Your task to perform on an android device: allow notifications from all sites in the chrome app Image 0: 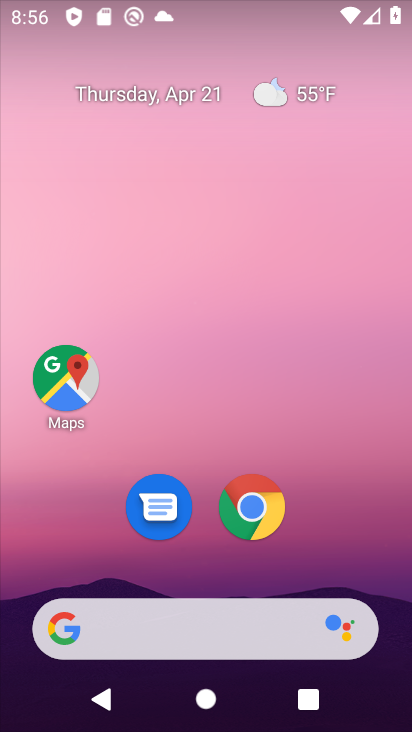
Step 0: drag from (269, 539) to (261, 209)
Your task to perform on an android device: allow notifications from all sites in the chrome app Image 1: 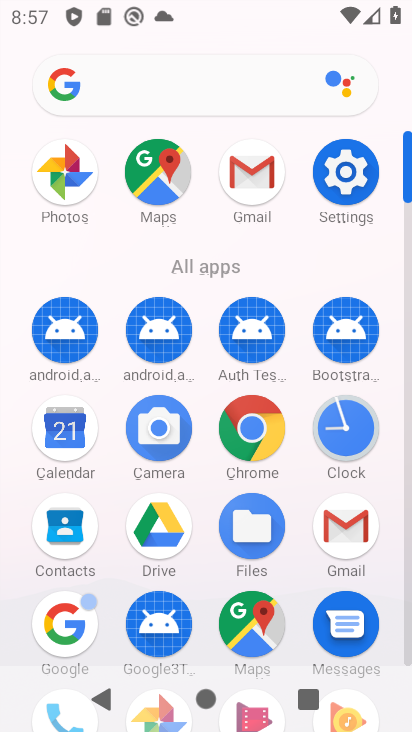
Step 1: drag from (195, 587) to (254, 311)
Your task to perform on an android device: allow notifications from all sites in the chrome app Image 2: 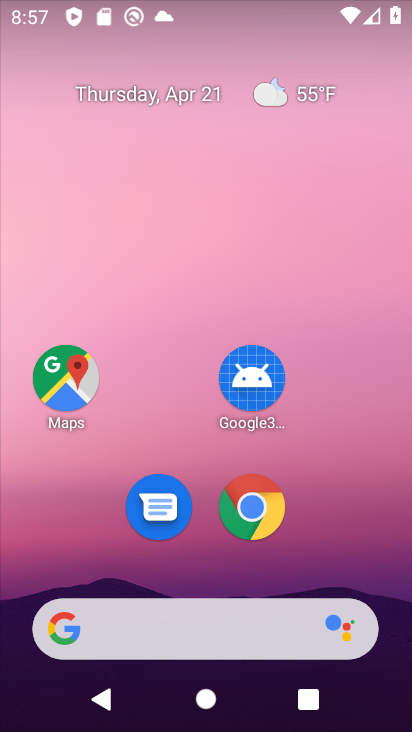
Step 2: drag from (213, 558) to (237, 159)
Your task to perform on an android device: allow notifications from all sites in the chrome app Image 3: 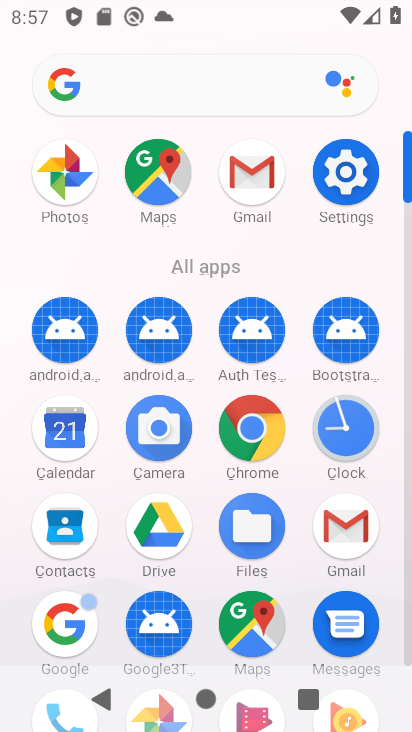
Step 3: click (256, 418)
Your task to perform on an android device: allow notifications from all sites in the chrome app Image 4: 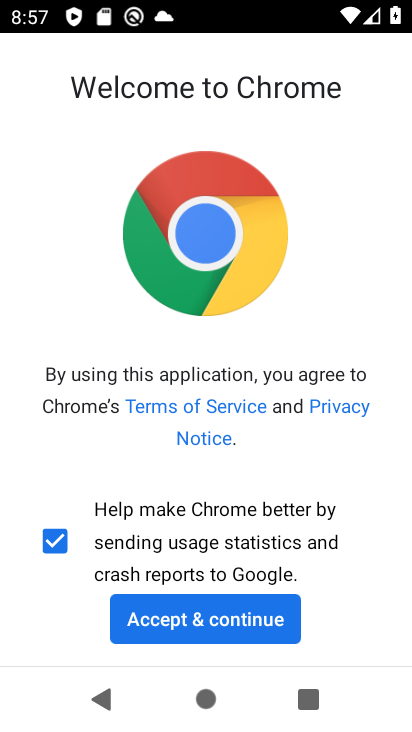
Step 4: click (218, 617)
Your task to perform on an android device: allow notifications from all sites in the chrome app Image 5: 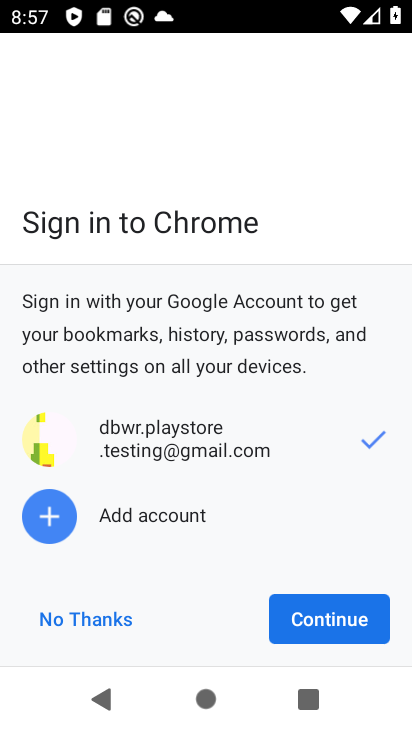
Step 5: click (316, 619)
Your task to perform on an android device: allow notifications from all sites in the chrome app Image 6: 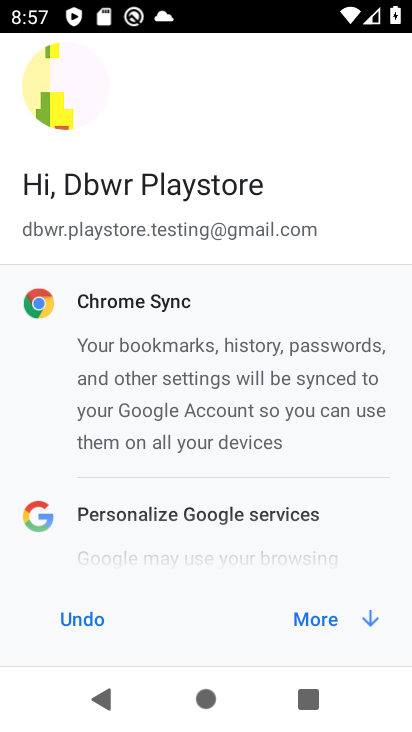
Step 6: click (316, 619)
Your task to perform on an android device: allow notifications from all sites in the chrome app Image 7: 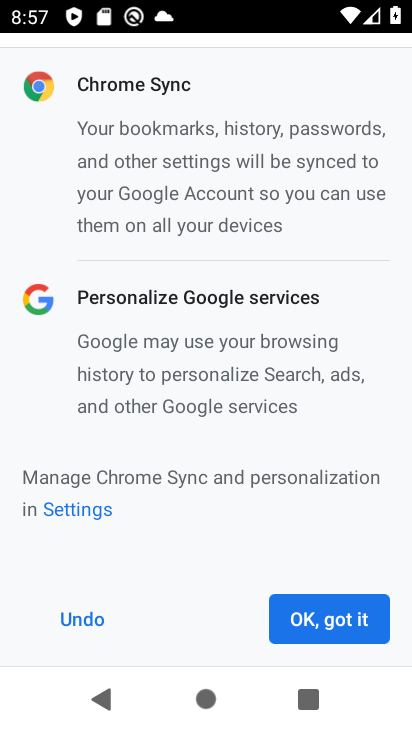
Step 7: click (316, 619)
Your task to perform on an android device: allow notifications from all sites in the chrome app Image 8: 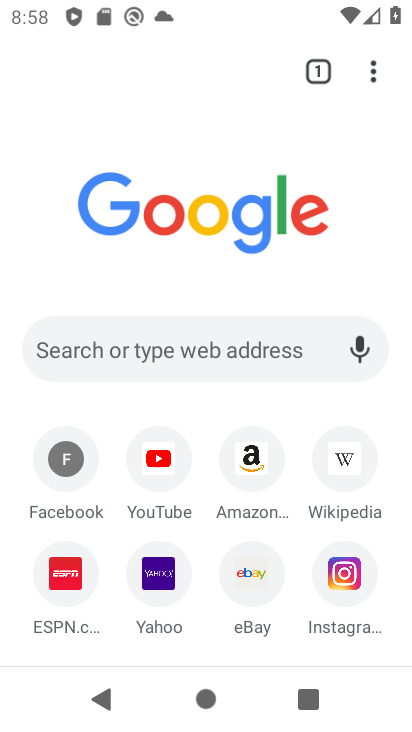
Step 8: click (351, 73)
Your task to perform on an android device: allow notifications from all sites in the chrome app Image 9: 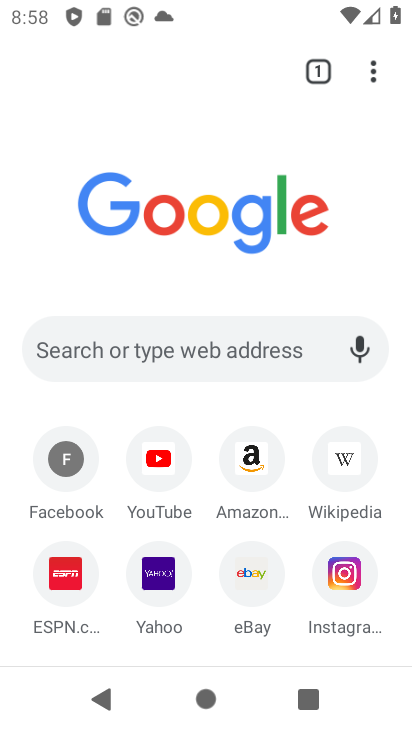
Step 9: click (350, 65)
Your task to perform on an android device: allow notifications from all sites in the chrome app Image 10: 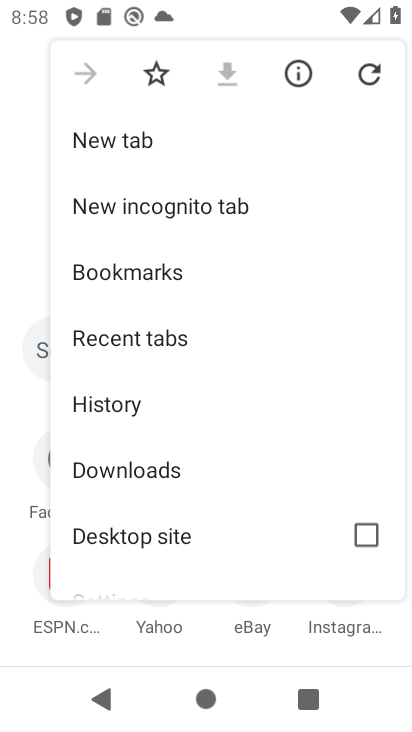
Step 10: drag from (131, 520) to (197, 123)
Your task to perform on an android device: allow notifications from all sites in the chrome app Image 11: 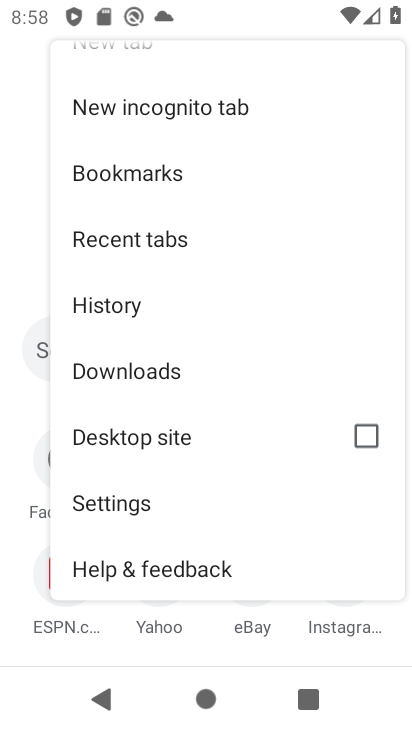
Step 11: click (117, 498)
Your task to perform on an android device: allow notifications from all sites in the chrome app Image 12: 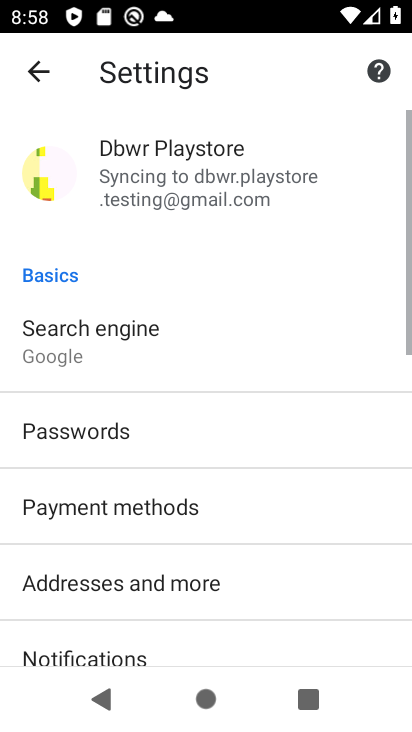
Step 12: drag from (192, 564) to (336, 96)
Your task to perform on an android device: allow notifications from all sites in the chrome app Image 13: 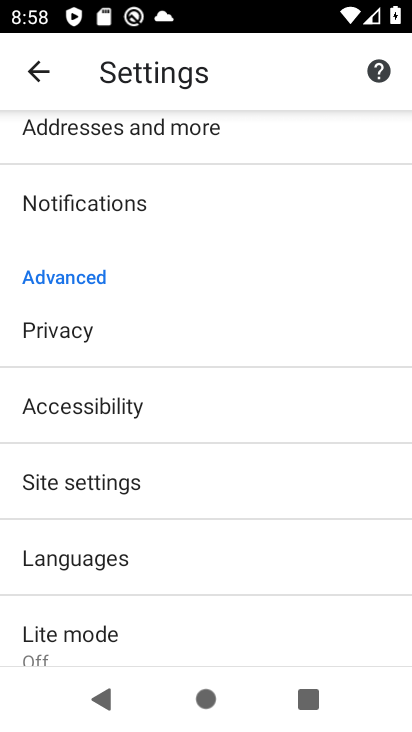
Step 13: click (129, 473)
Your task to perform on an android device: allow notifications from all sites in the chrome app Image 14: 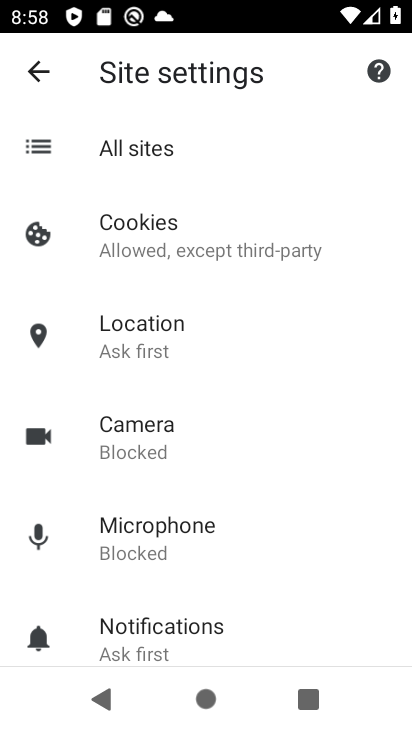
Step 14: click (211, 241)
Your task to perform on an android device: allow notifications from all sites in the chrome app Image 15: 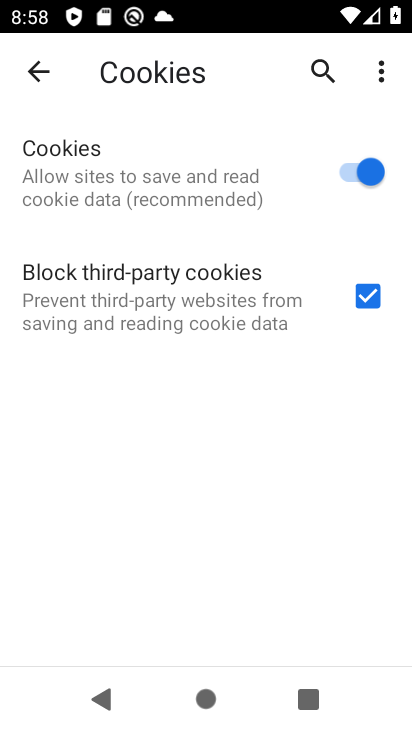
Step 15: click (36, 68)
Your task to perform on an android device: allow notifications from all sites in the chrome app Image 16: 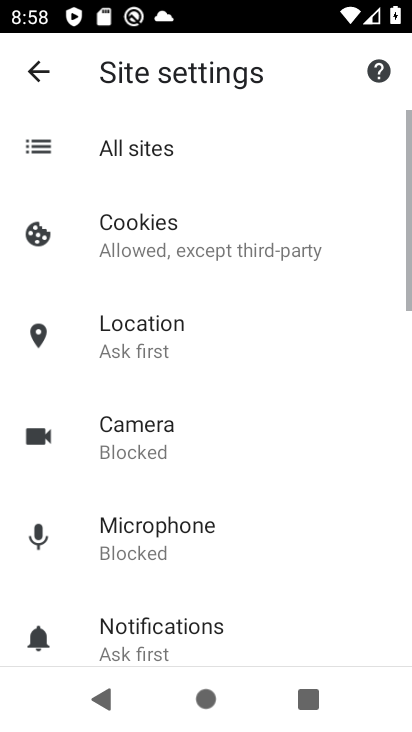
Step 16: click (194, 343)
Your task to perform on an android device: allow notifications from all sites in the chrome app Image 17: 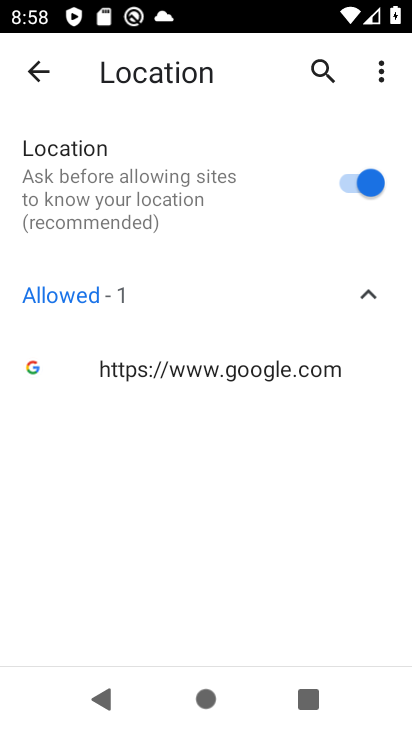
Step 17: click (41, 73)
Your task to perform on an android device: allow notifications from all sites in the chrome app Image 18: 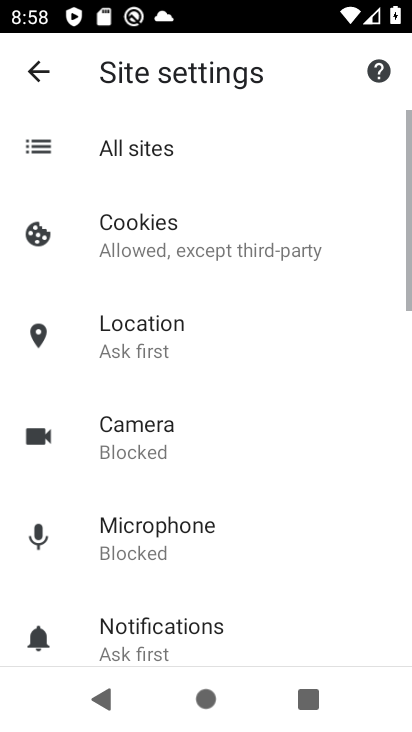
Step 18: click (164, 525)
Your task to perform on an android device: allow notifications from all sites in the chrome app Image 19: 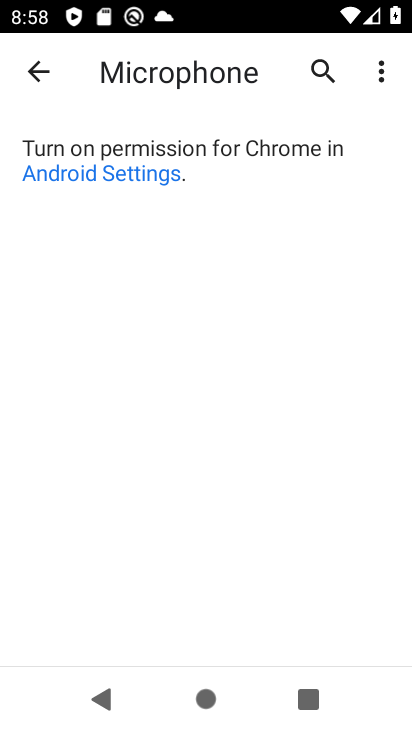
Step 19: click (47, 68)
Your task to perform on an android device: allow notifications from all sites in the chrome app Image 20: 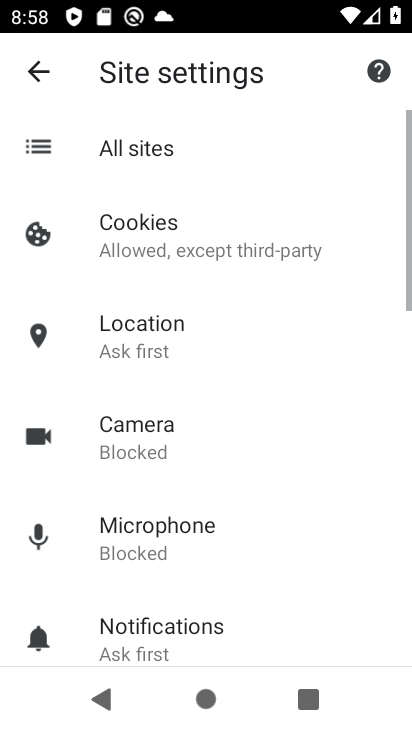
Step 20: drag from (192, 510) to (236, 187)
Your task to perform on an android device: allow notifications from all sites in the chrome app Image 21: 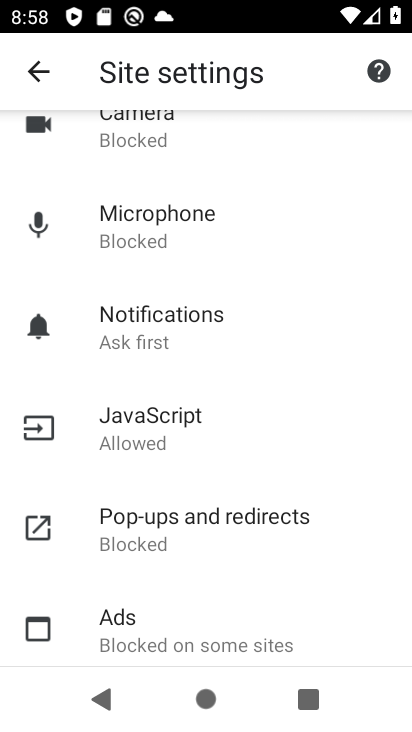
Step 21: click (165, 309)
Your task to perform on an android device: allow notifications from all sites in the chrome app Image 22: 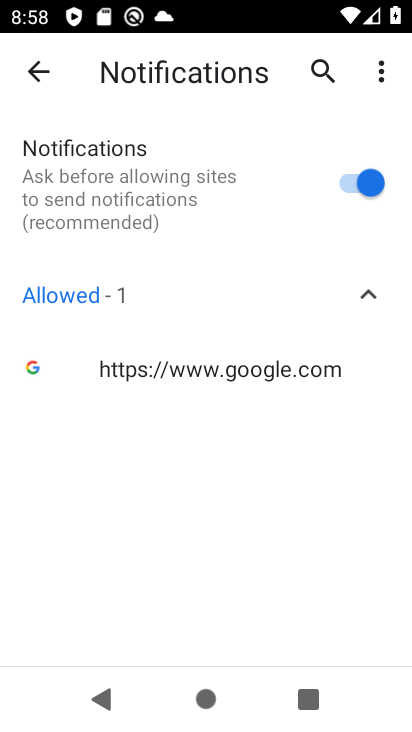
Step 22: click (47, 65)
Your task to perform on an android device: allow notifications from all sites in the chrome app Image 23: 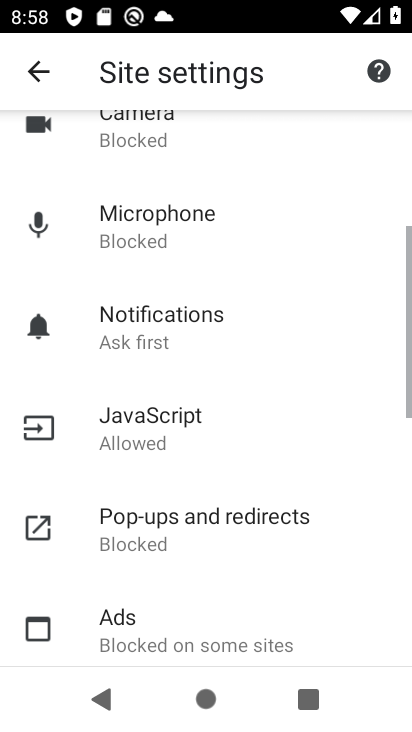
Step 23: click (166, 454)
Your task to perform on an android device: allow notifications from all sites in the chrome app Image 24: 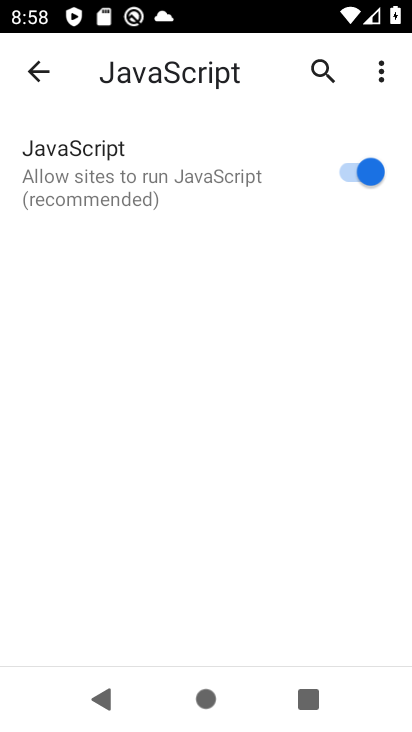
Step 24: click (24, 67)
Your task to perform on an android device: allow notifications from all sites in the chrome app Image 25: 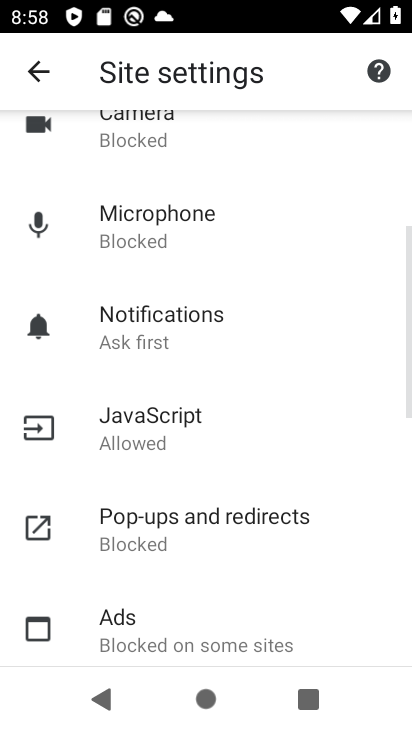
Step 25: click (214, 550)
Your task to perform on an android device: allow notifications from all sites in the chrome app Image 26: 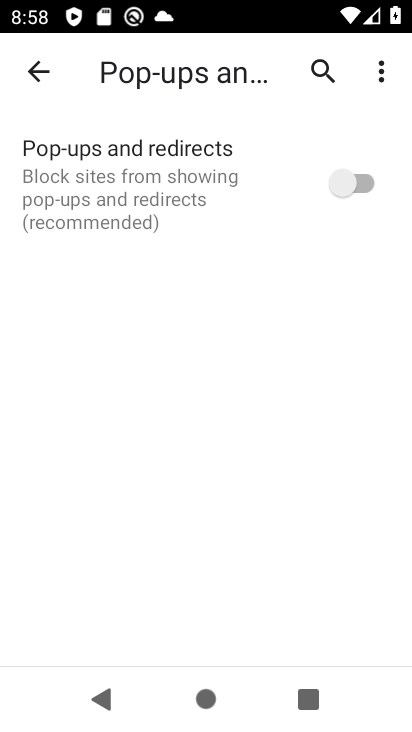
Step 26: click (350, 182)
Your task to perform on an android device: allow notifications from all sites in the chrome app Image 27: 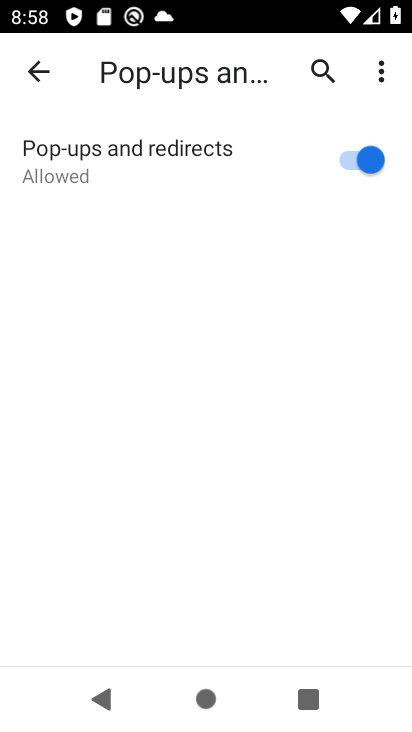
Step 27: click (35, 62)
Your task to perform on an android device: allow notifications from all sites in the chrome app Image 28: 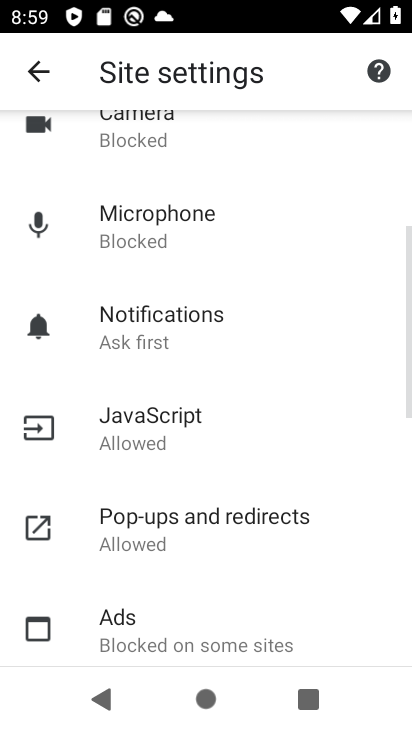
Step 28: drag from (180, 571) to (251, 177)
Your task to perform on an android device: allow notifications from all sites in the chrome app Image 29: 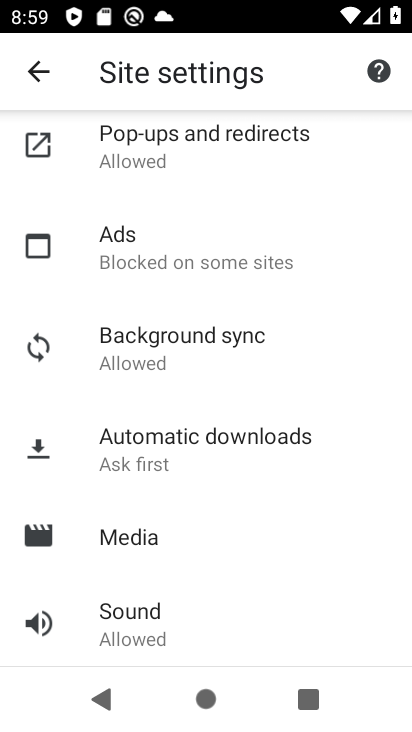
Step 29: click (127, 235)
Your task to perform on an android device: allow notifications from all sites in the chrome app Image 30: 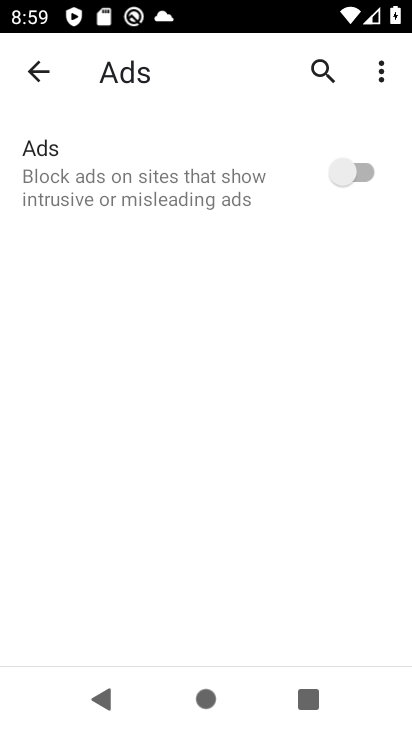
Step 30: click (353, 165)
Your task to perform on an android device: allow notifications from all sites in the chrome app Image 31: 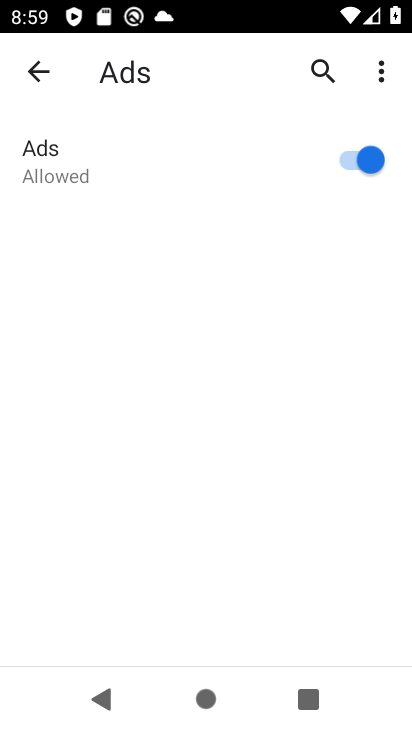
Step 31: click (27, 68)
Your task to perform on an android device: allow notifications from all sites in the chrome app Image 32: 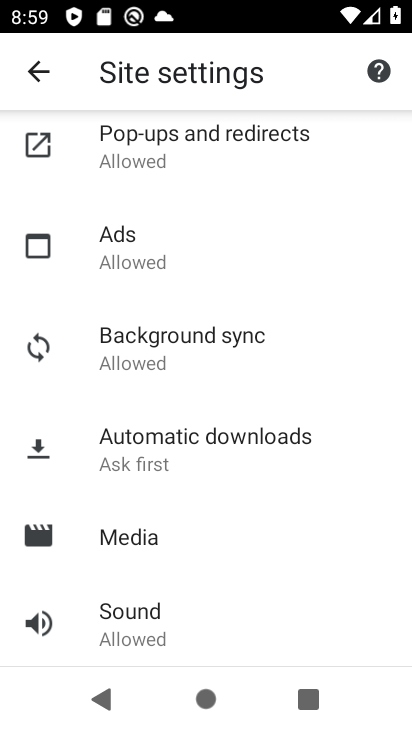
Step 32: click (193, 356)
Your task to perform on an android device: allow notifications from all sites in the chrome app Image 33: 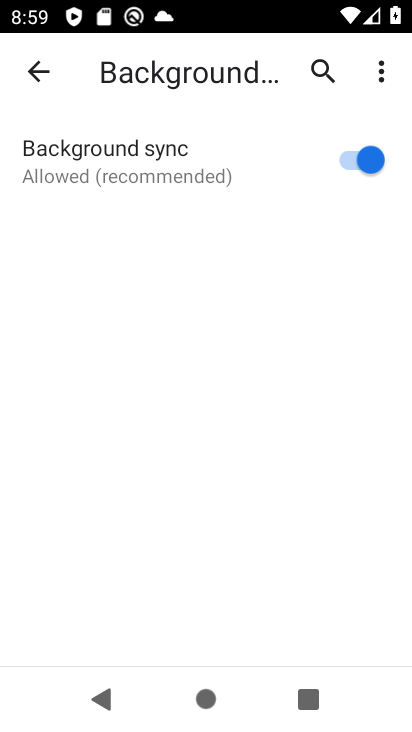
Step 33: click (42, 69)
Your task to perform on an android device: allow notifications from all sites in the chrome app Image 34: 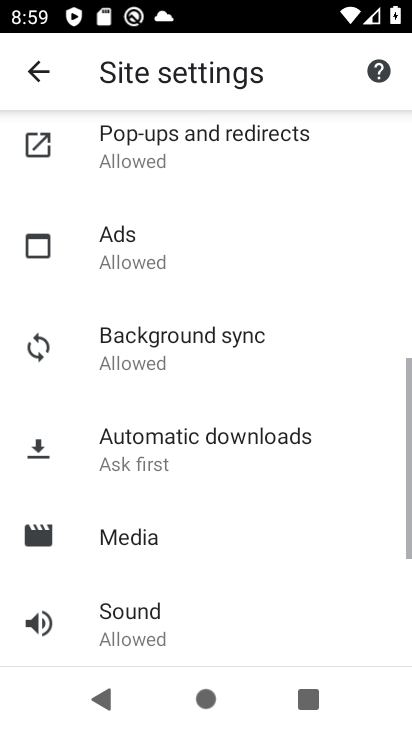
Step 34: click (197, 447)
Your task to perform on an android device: allow notifications from all sites in the chrome app Image 35: 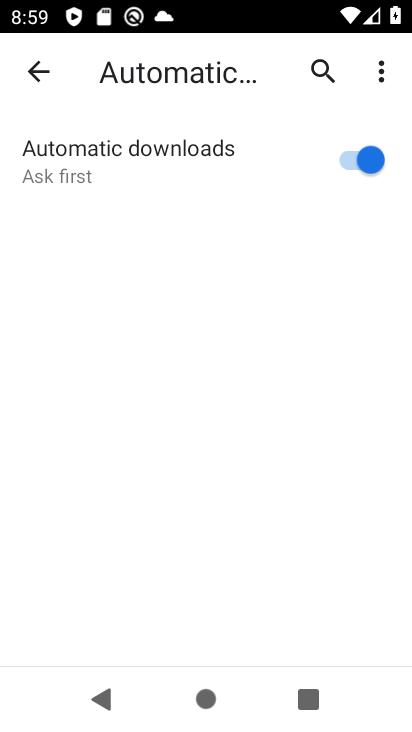
Step 35: click (41, 63)
Your task to perform on an android device: allow notifications from all sites in the chrome app Image 36: 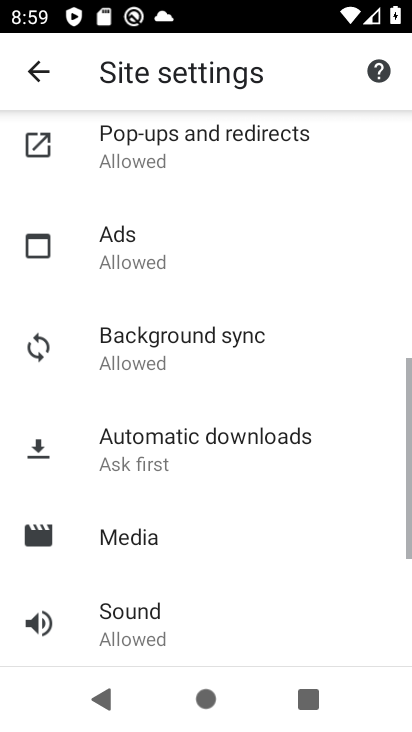
Step 36: drag from (195, 539) to (269, 173)
Your task to perform on an android device: allow notifications from all sites in the chrome app Image 37: 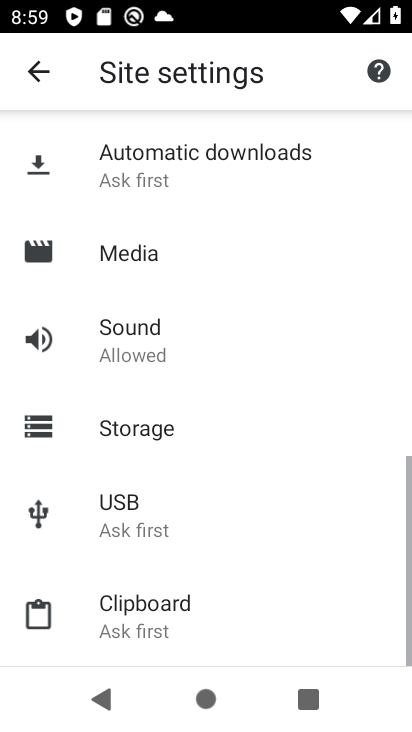
Step 37: click (181, 613)
Your task to perform on an android device: allow notifications from all sites in the chrome app Image 38: 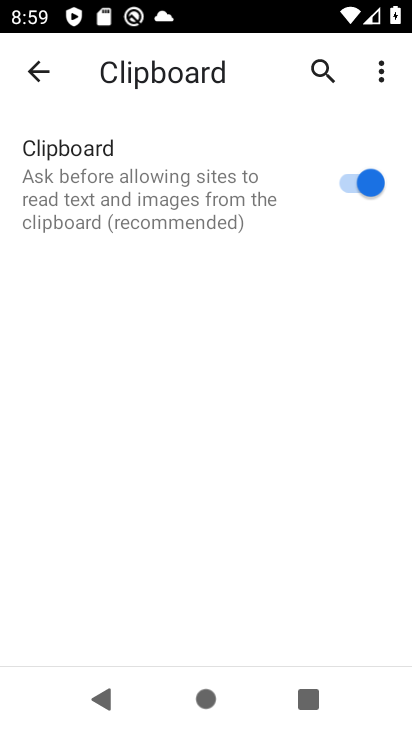
Step 38: click (45, 53)
Your task to perform on an android device: allow notifications from all sites in the chrome app Image 39: 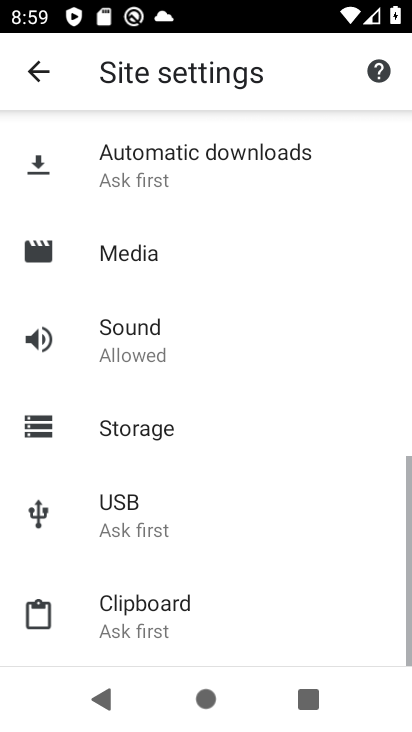
Step 39: click (212, 518)
Your task to perform on an android device: allow notifications from all sites in the chrome app Image 40: 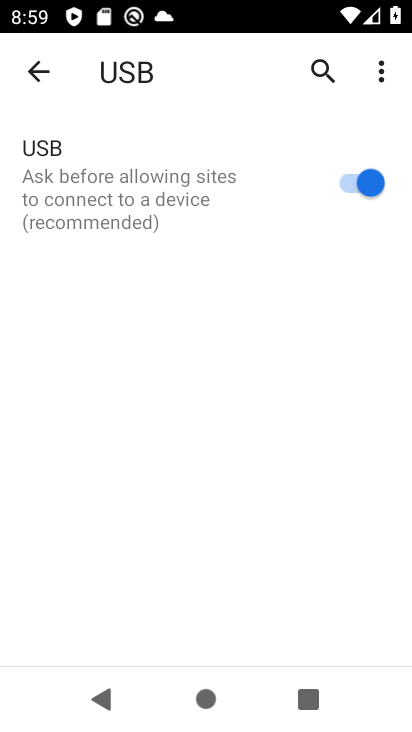
Step 40: click (45, 68)
Your task to perform on an android device: allow notifications from all sites in the chrome app Image 41: 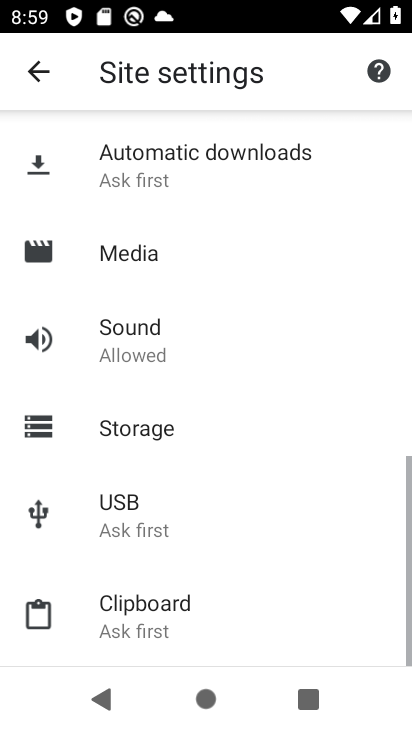
Step 41: task complete